Your task to perform on an android device: Do I have any events today? Image 0: 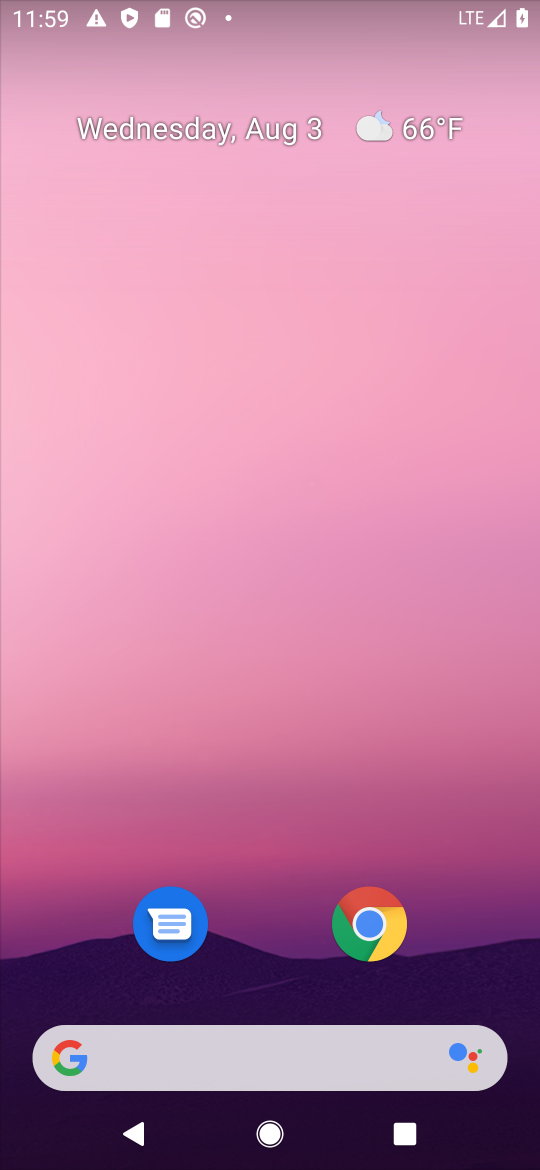
Step 0: drag from (87, 972) to (249, 258)
Your task to perform on an android device: Do I have any events today? Image 1: 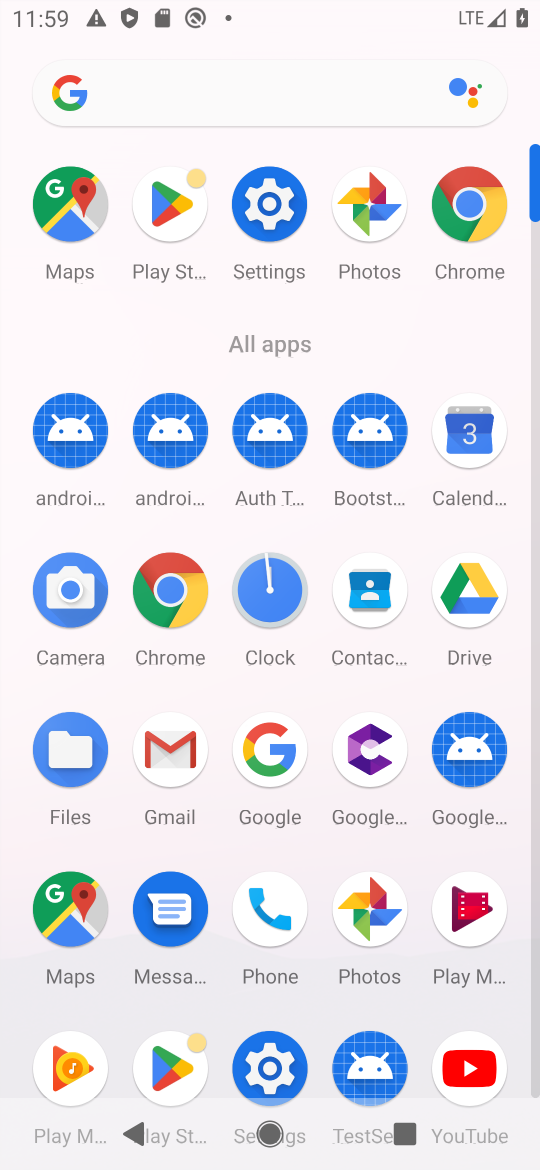
Step 1: click (468, 449)
Your task to perform on an android device: Do I have any events today? Image 2: 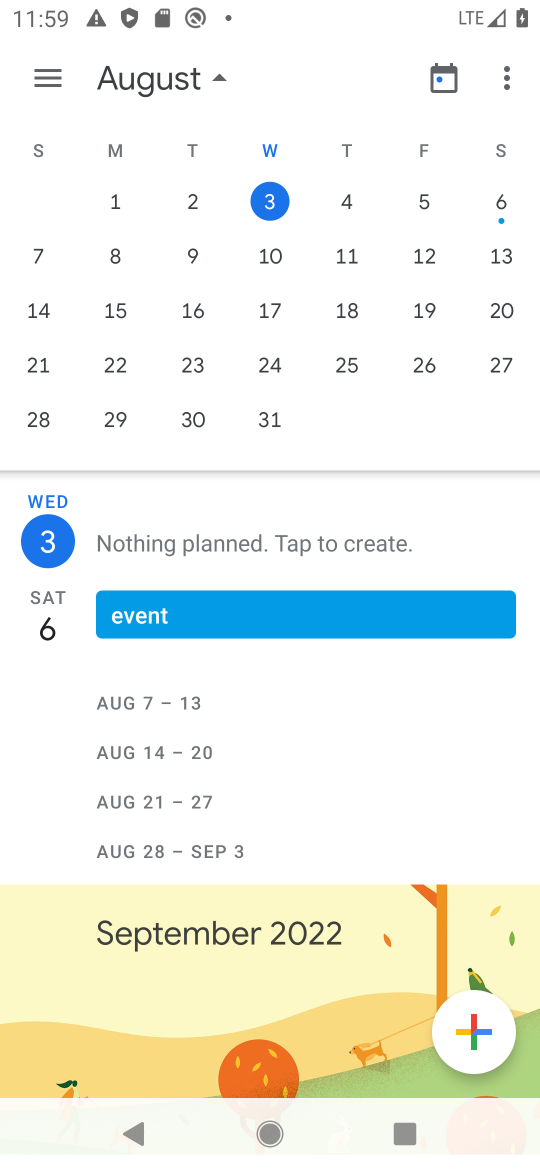
Step 2: task complete